Your task to perform on an android device: choose inbox layout in the gmail app Image 0: 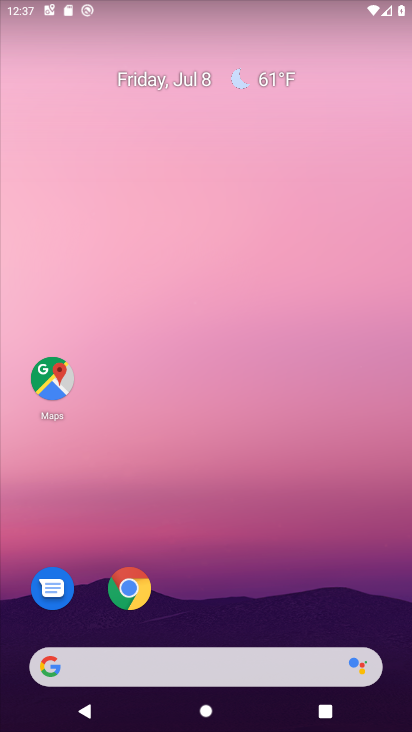
Step 0: press home button
Your task to perform on an android device: choose inbox layout in the gmail app Image 1: 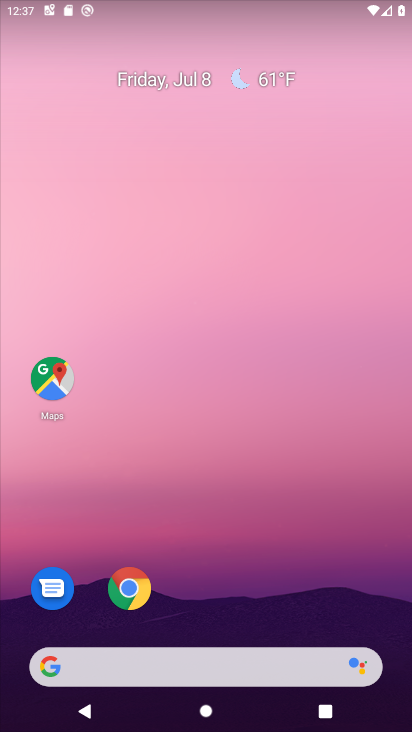
Step 1: drag from (286, 587) to (264, 4)
Your task to perform on an android device: choose inbox layout in the gmail app Image 2: 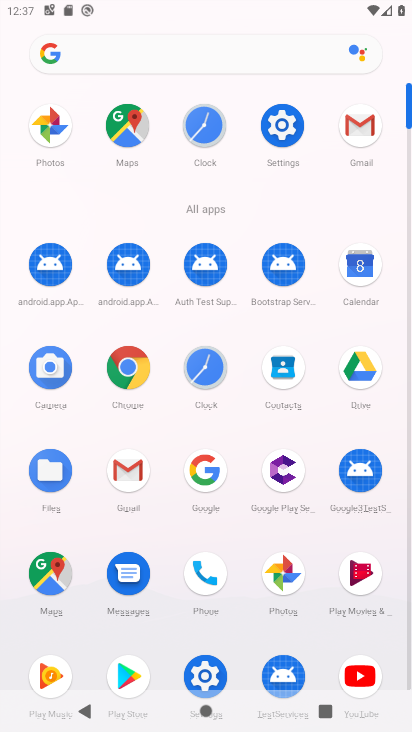
Step 2: click (356, 130)
Your task to perform on an android device: choose inbox layout in the gmail app Image 3: 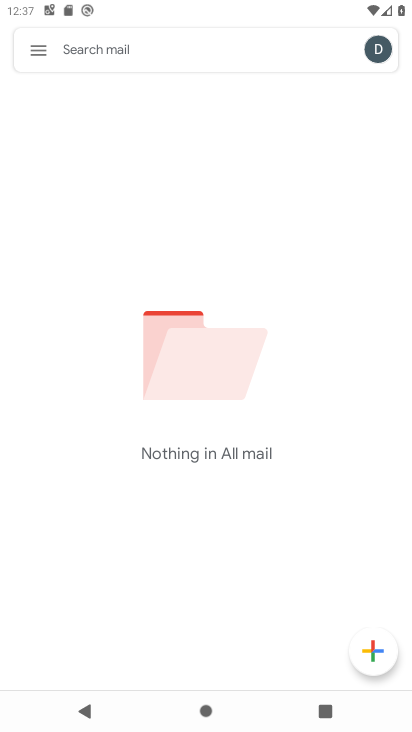
Step 3: click (35, 48)
Your task to perform on an android device: choose inbox layout in the gmail app Image 4: 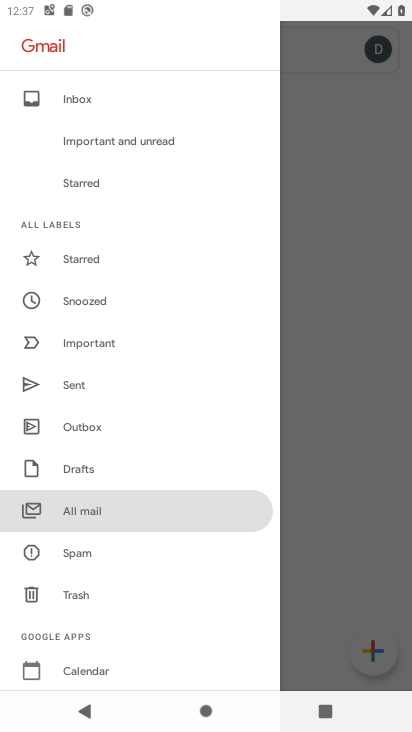
Step 4: drag from (136, 620) to (182, 283)
Your task to perform on an android device: choose inbox layout in the gmail app Image 5: 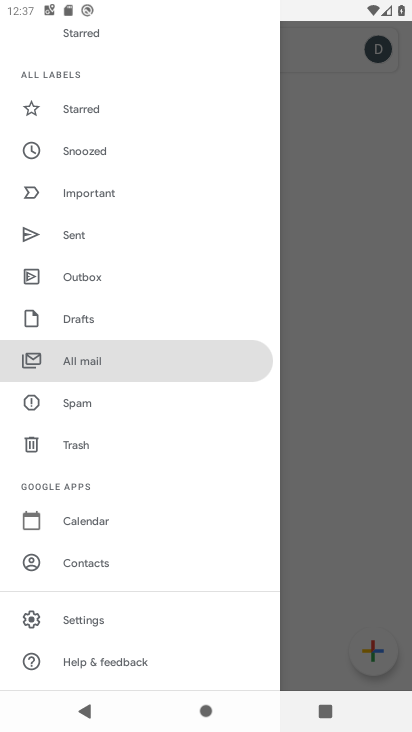
Step 5: click (85, 624)
Your task to perform on an android device: choose inbox layout in the gmail app Image 6: 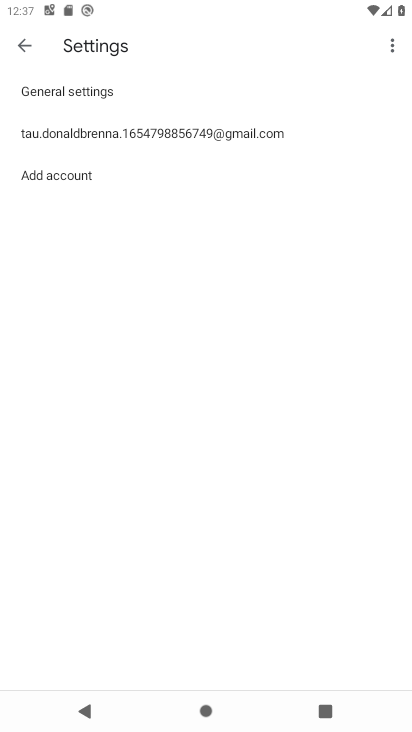
Step 6: click (65, 124)
Your task to perform on an android device: choose inbox layout in the gmail app Image 7: 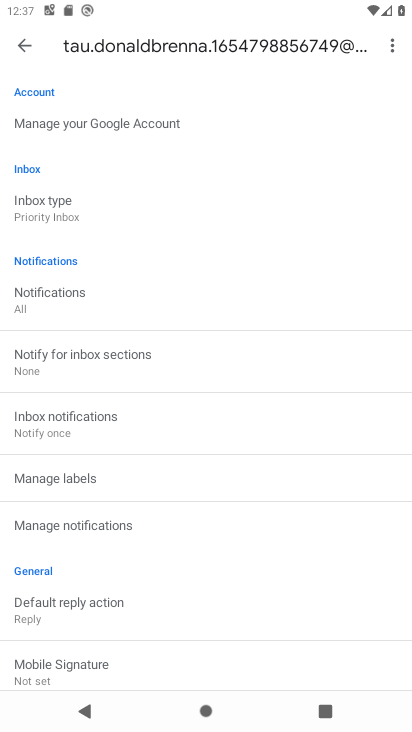
Step 7: click (50, 204)
Your task to perform on an android device: choose inbox layout in the gmail app Image 8: 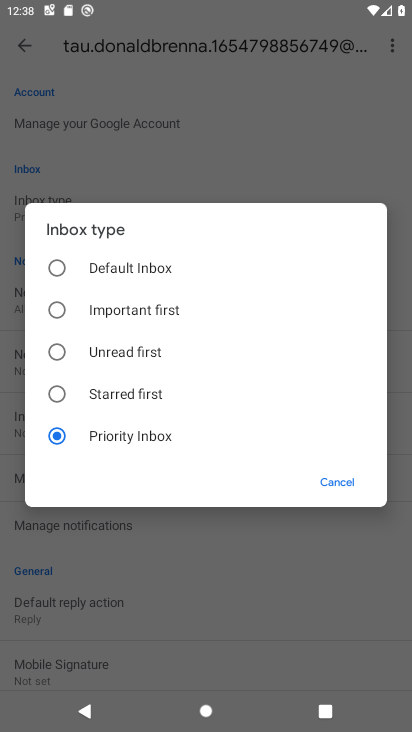
Step 8: task complete